Your task to perform on an android device: Check the weather Image 0: 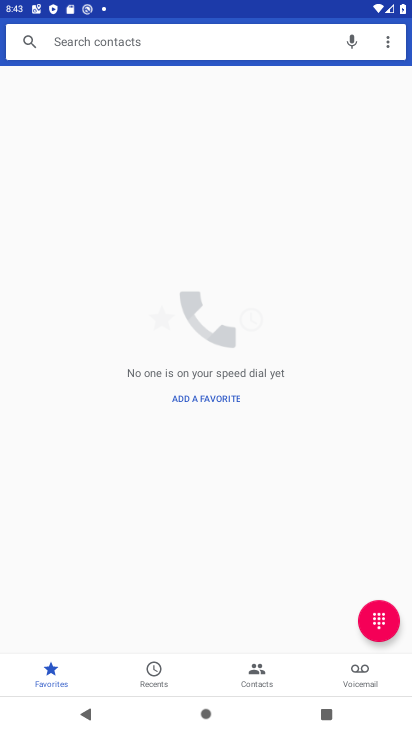
Step 0: press back button
Your task to perform on an android device: Check the weather Image 1: 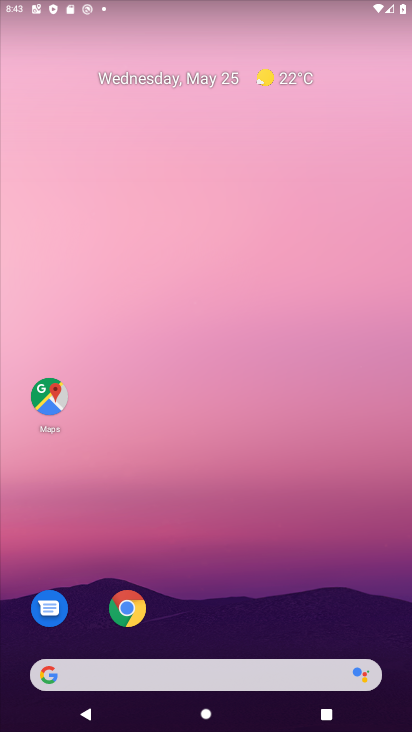
Step 1: drag from (233, 601) to (223, 109)
Your task to perform on an android device: Check the weather Image 2: 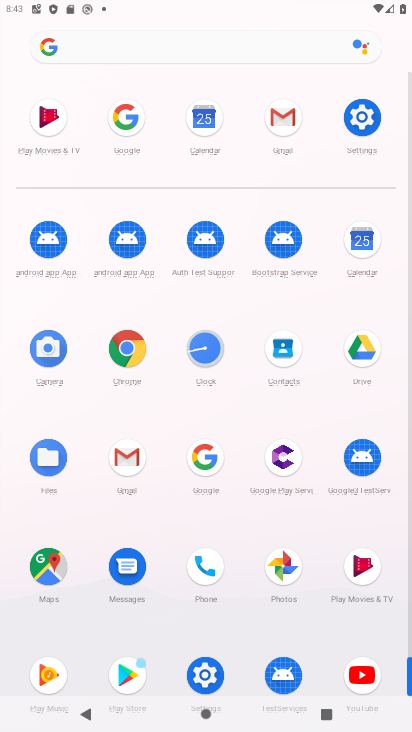
Step 2: click (205, 454)
Your task to perform on an android device: Check the weather Image 3: 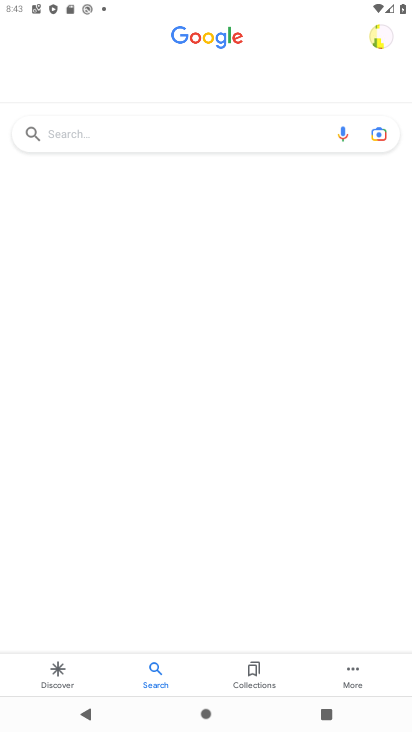
Step 3: click (151, 125)
Your task to perform on an android device: Check the weather Image 4: 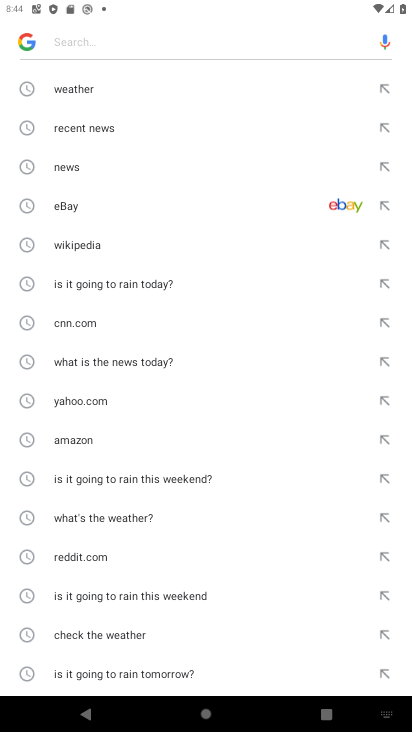
Step 4: click (73, 86)
Your task to perform on an android device: Check the weather Image 5: 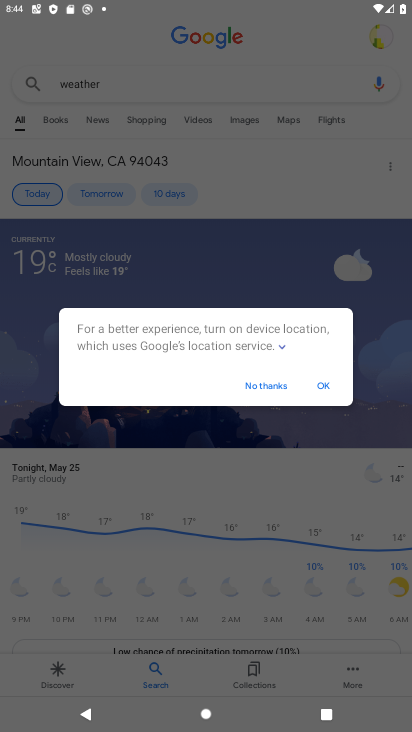
Step 5: click (265, 387)
Your task to perform on an android device: Check the weather Image 6: 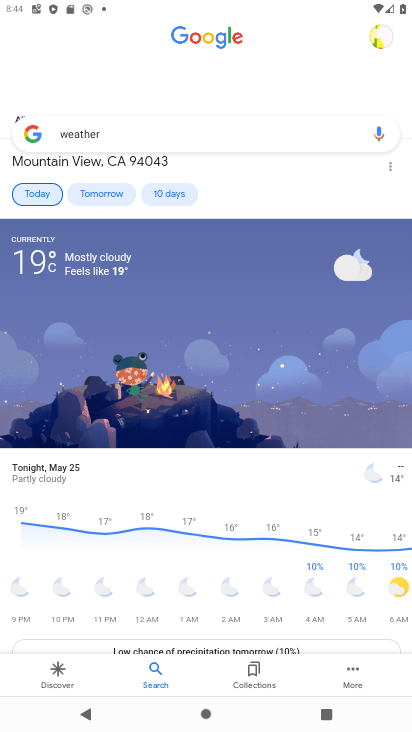
Step 6: task complete